Your task to perform on an android device: change alarm snooze length Image 0: 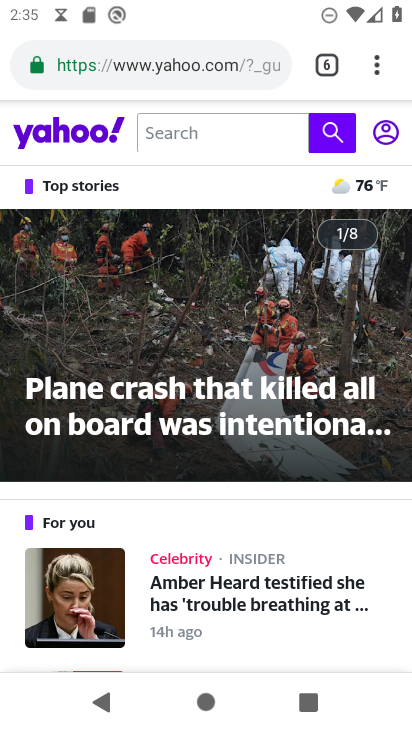
Step 0: press home button
Your task to perform on an android device: change alarm snooze length Image 1: 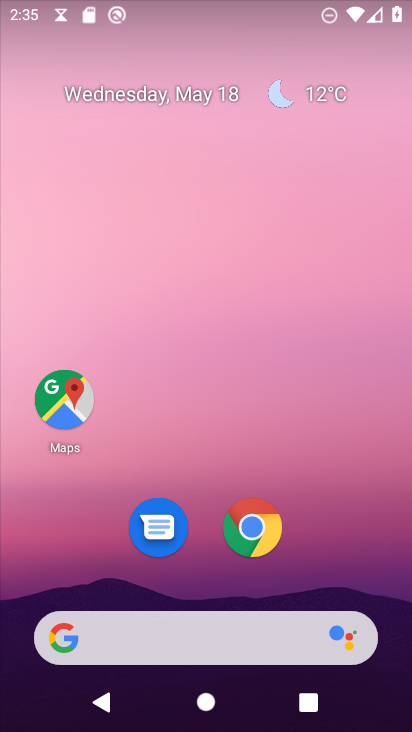
Step 1: drag from (349, 548) to (225, 35)
Your task to perform on an android device: change alarm snooze length Image 2: 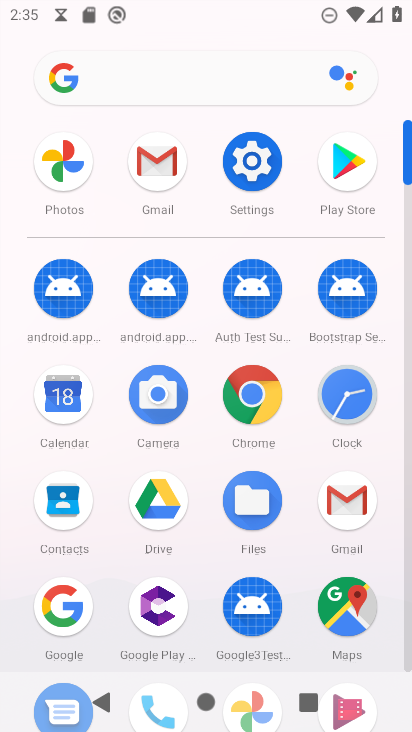
Step 2: click (345, 384)
Your task to perform on an android device: change alarm snooze length Image 3: 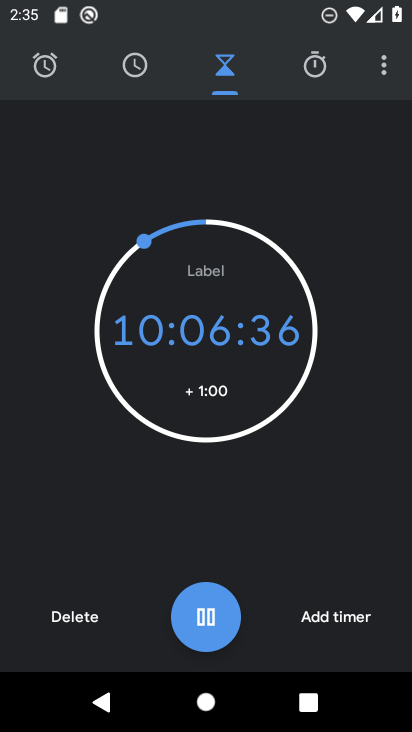
Step 3: click (383, 67)
Your task to perform on an android device: change alarm snooze length Image 4: 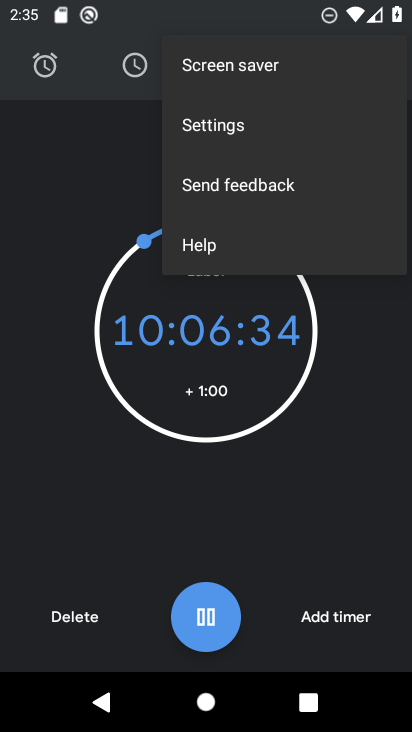
Step 4: click (249, 138)
Your task to perform on an android device: change alarm snooze length Image 5: 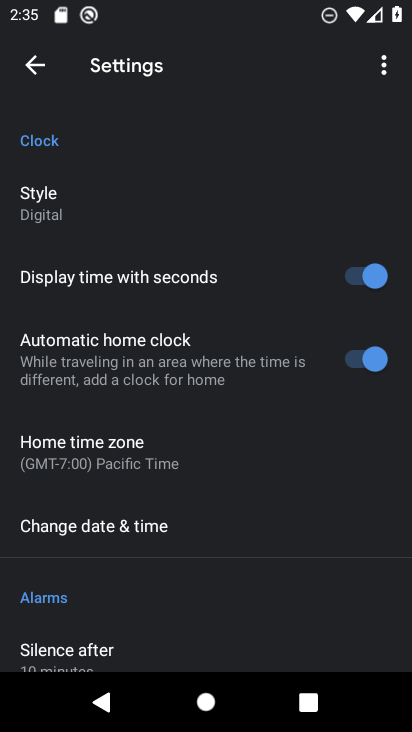
Step 5: drag from (197, 600) to (221, 302)
Your task to perform on an android device: change alarm snooze length Image 6: 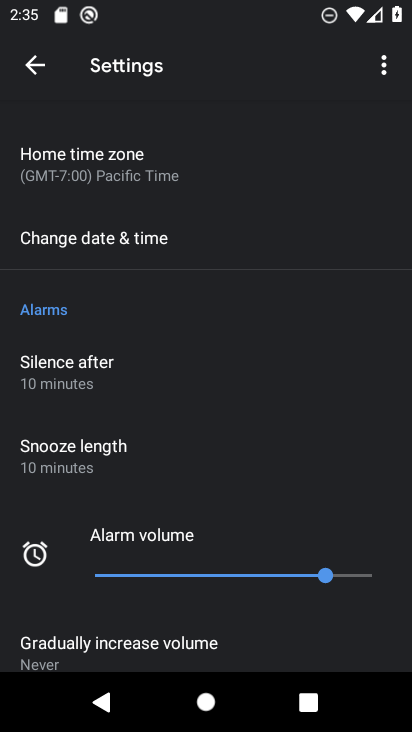
Step 6: click (108, 457)
Your task to perform on an android device: change alarm snooze length Image 7: 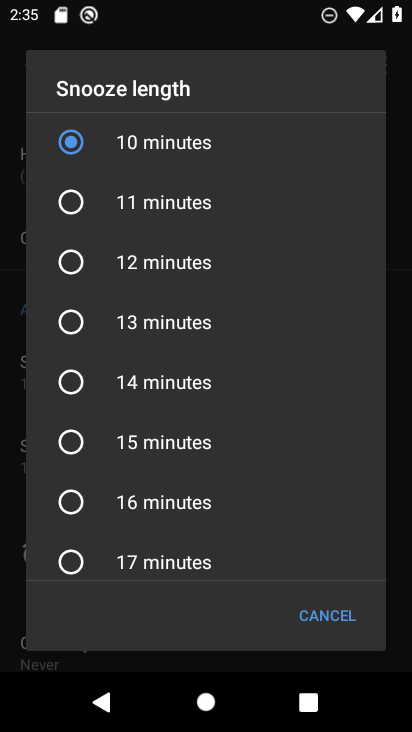
Step 7: click (163, 209)
Your task to perform on an android device: change alarm snooze length Image 8: 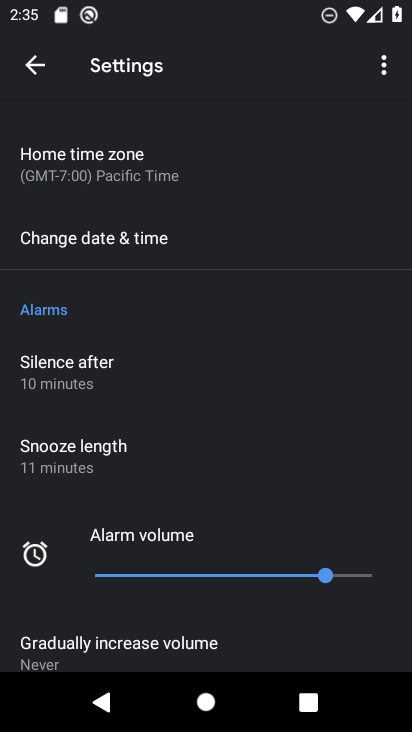
Step 8: task complete